Your task to perform on an android device: set the stopwatch Image 0: 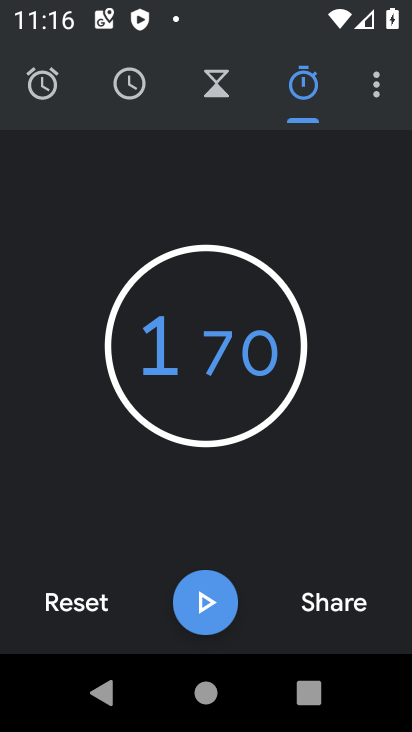
Step 0: press home button
Your task to perform on an android device: set the stopwatch Image 1: 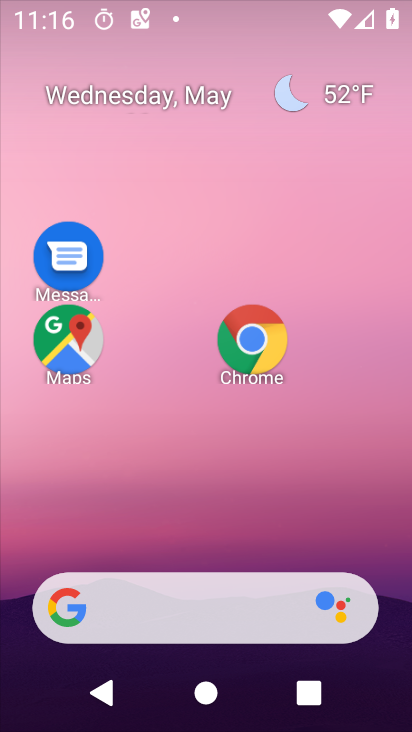
Step 1: drag from (206, 522) to (227, 37)
Your task to perform on an android device: set the stopwatch Image 2: 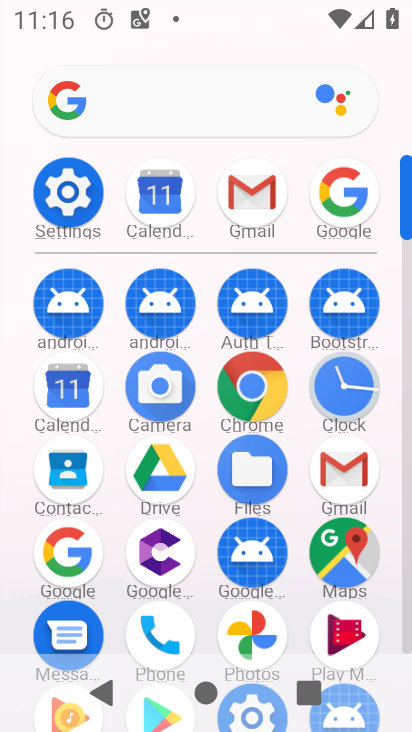
Step 2: click (347, 390)
Your task to perform on an android device: set the stopwatch Image 3: 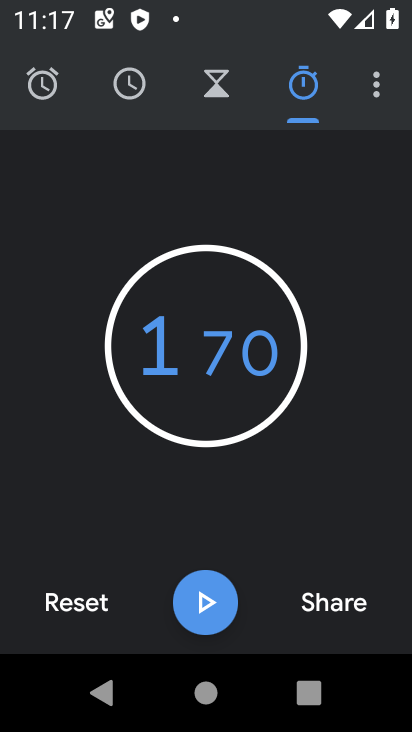
Step 3: click (206, 591)
Your task to perform on an android device: set the stopwatch Image 4: 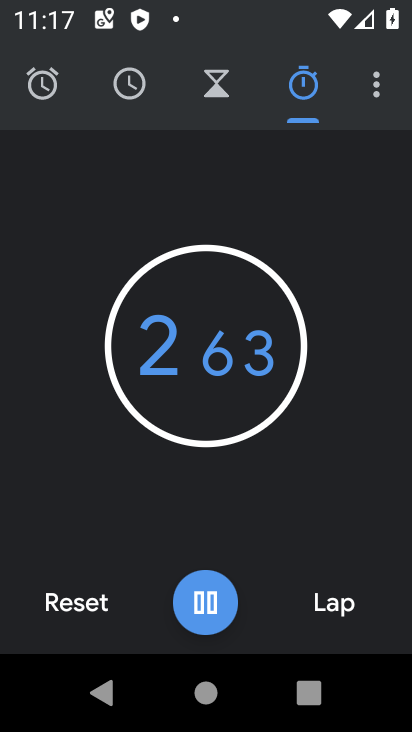
Step 4: click (206, 591)
Your task to perform on an android device: set the stopwatch Image 5: 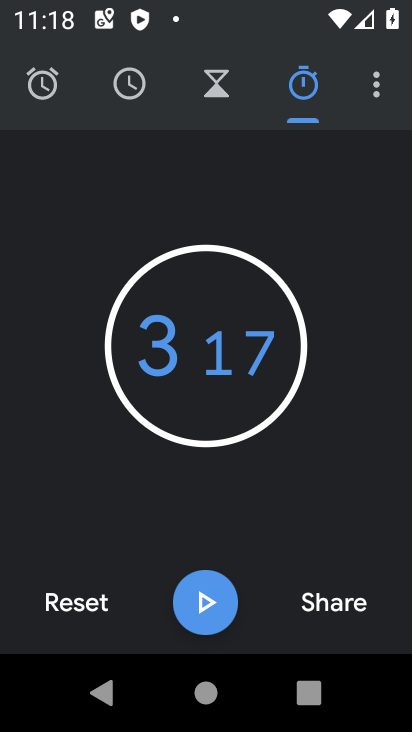
Step 5: task complete